Your task to perform on an android device: toggle priority inbox in the gmail app Image 0: 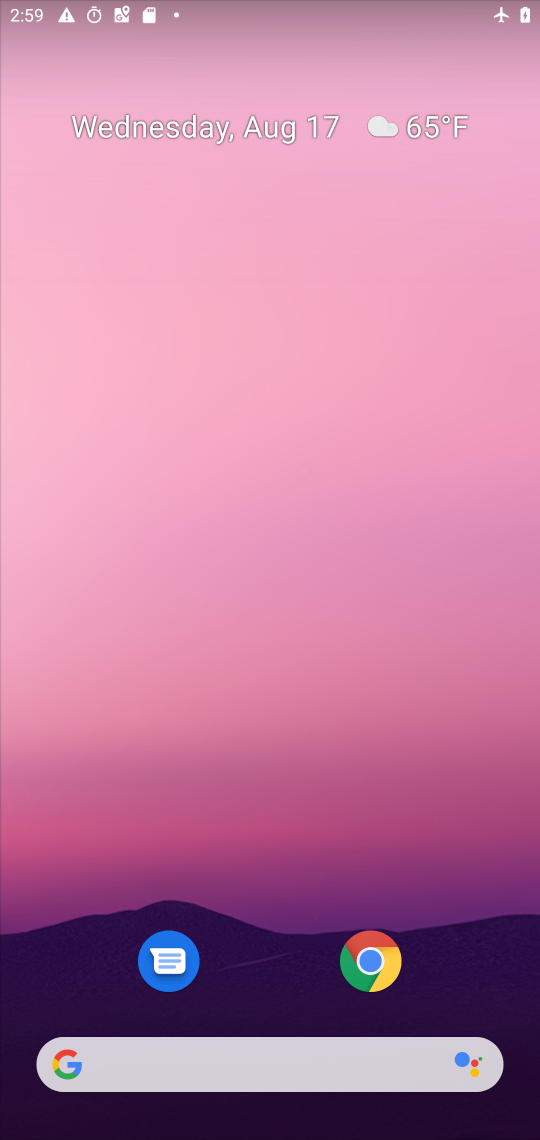
Step 0: drag from (296, 983) to (457, 2)
Your task to perform on an android device: toggle priority inbox in the gmail app Image 1: 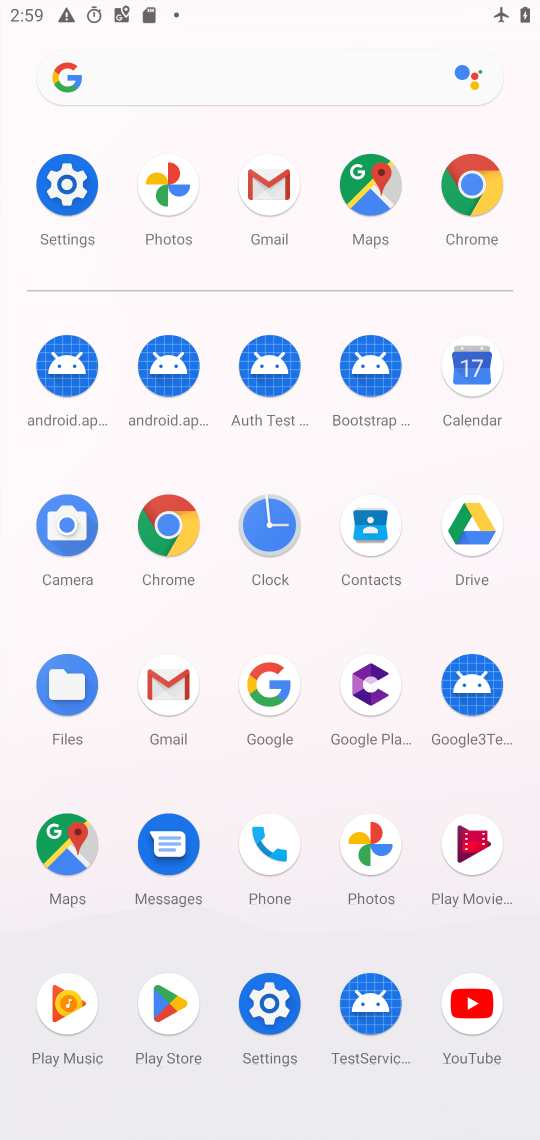
Step 1: click (166, 686)
Your task to perform on an android device: toggle priority inbox in the gmail app Image 2: 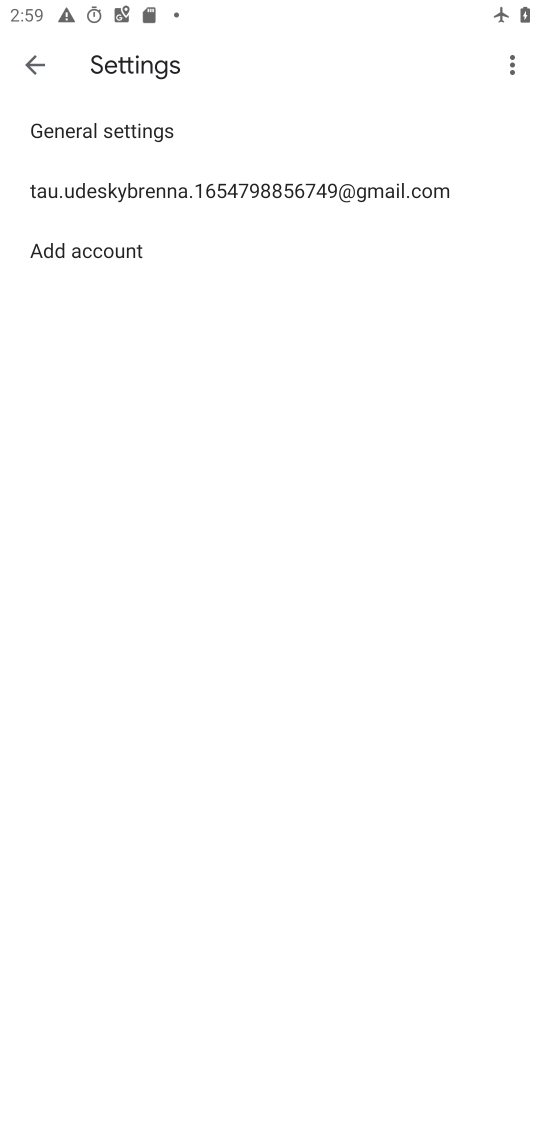
Step 2: click (198, 186)
Your task to perform on an android device: toggle priority inbox in the gmail app Image 3: 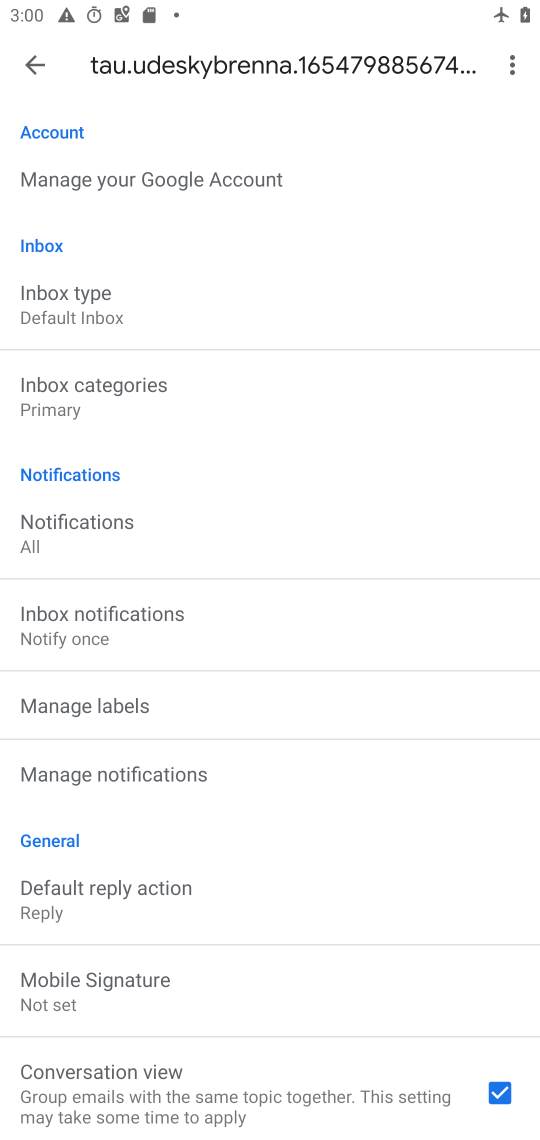
Step 3: click (153, 312)
Your task to perform on an android device: toggle priority inbox in the gmail app Image 4: 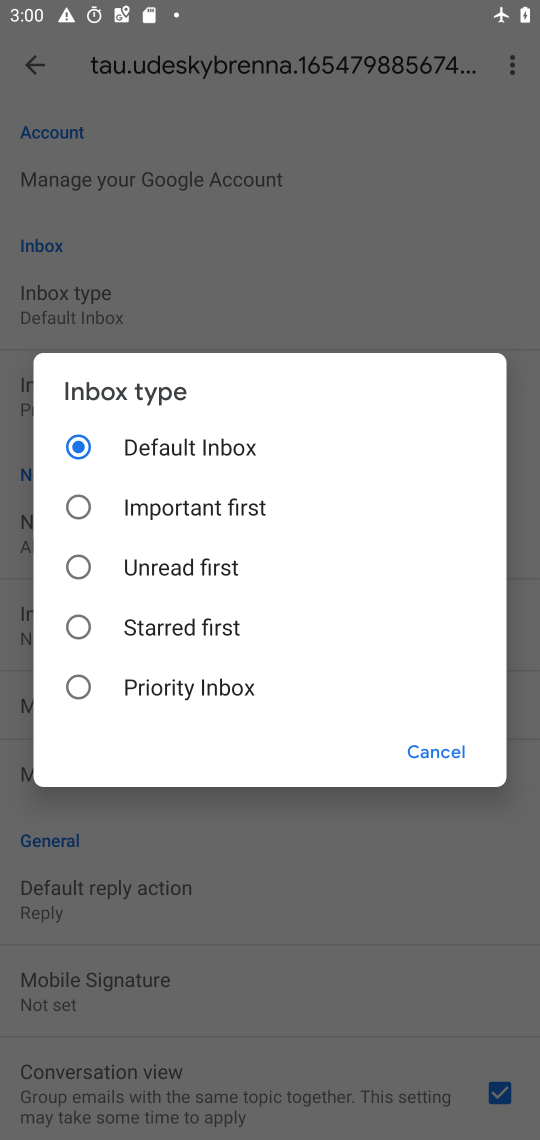
Step 4: click (105, 685)
Your task to perform on an android device: toggle priority inbox in the gmail app Image 5: 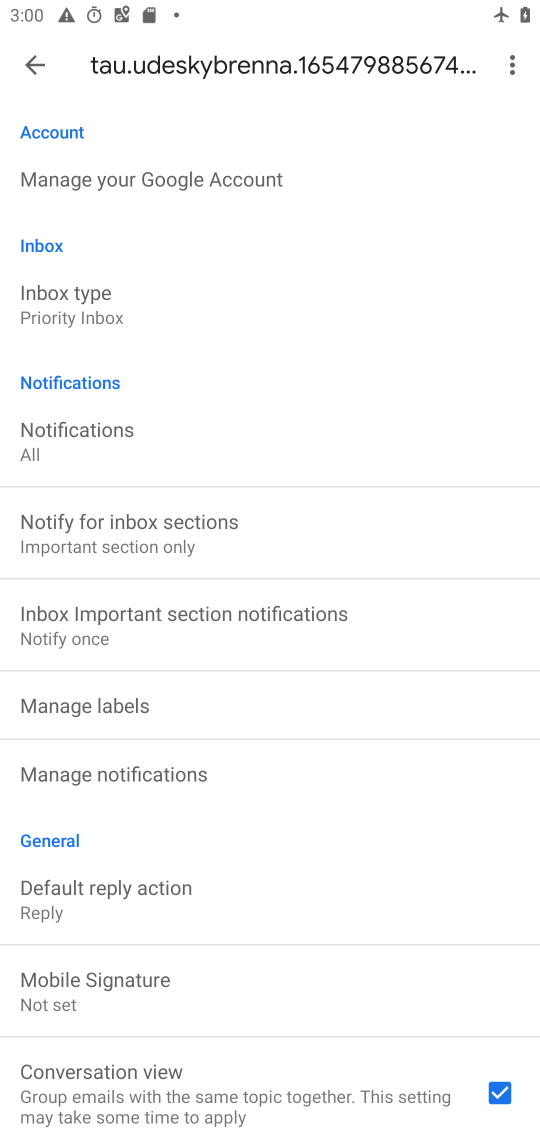
Step 5: task complete